Your task to perform on an android device: What is the recent news? Image 0: 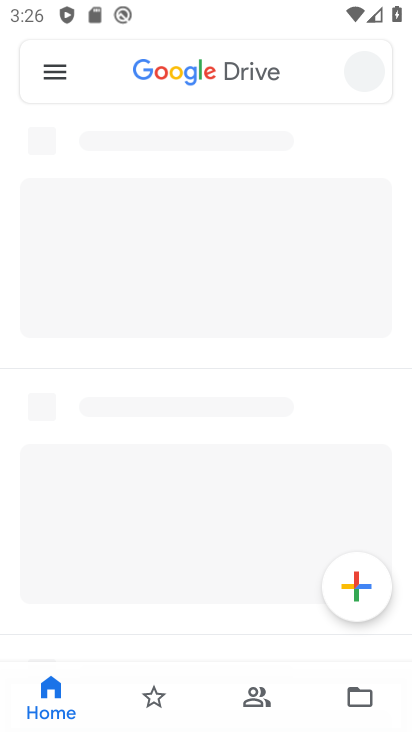
Step 0: drag from (352, 503) to (371, 219)
Your task to perform on an android device: What is the recent news? Image 1: 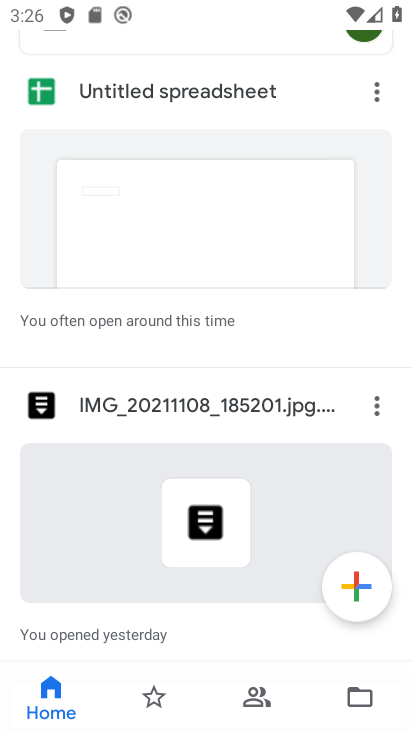
Step 1: press home button
Your task to perform on an android device: What is the recent news? Image 2: 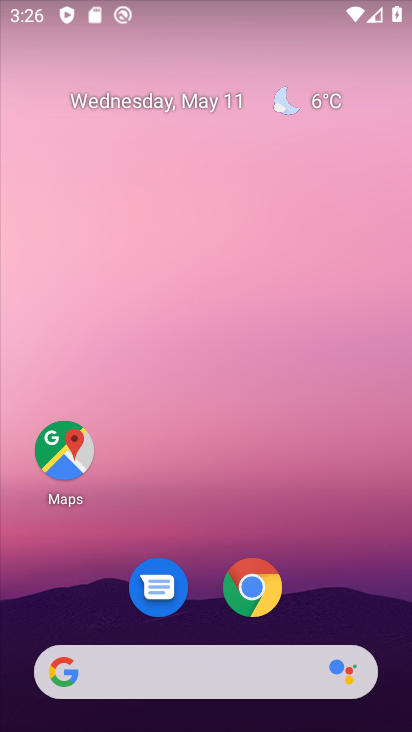
Step 2: drag from (296, 603) to (198, 263)
Your task to perform on an android device: What is the recent news? Image 3: 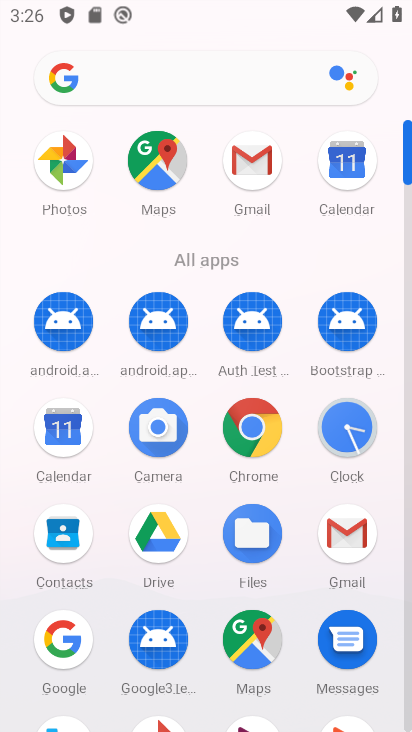
Step 3: click (52, 660)
Your task to perform on an android device: What is the recent news? Image 4: 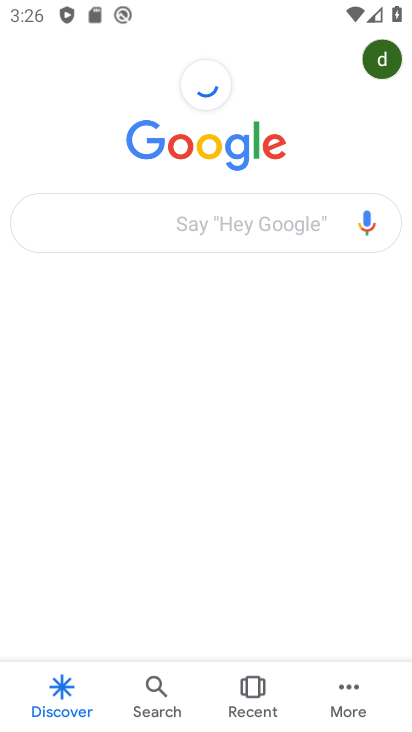
Step 4: click (65, 228)
Your task to perform on an android device: What is the recent news? Image 5: 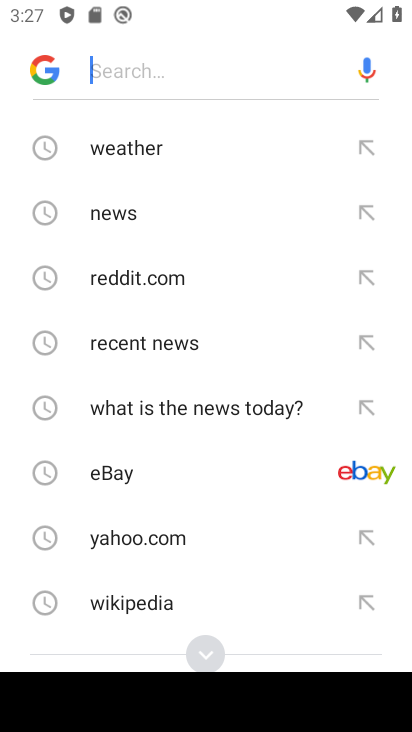
Step 5: type "recent news"
Your task to perform on an android device: What is the recent news? Image 6: 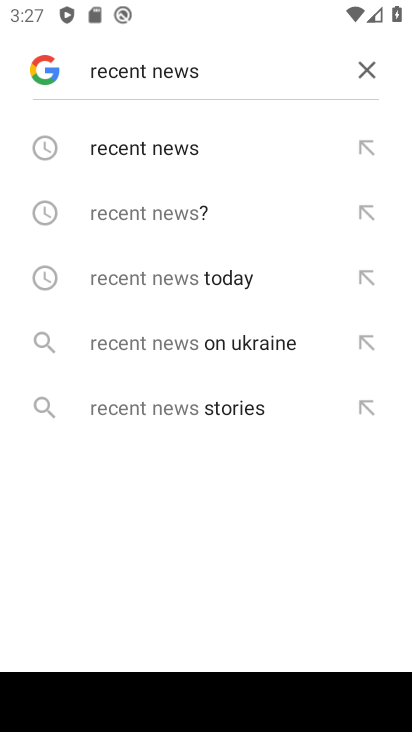
Step 6: click (235, 158)
Your task to perform on an android device: What is the recent news? Image 7: 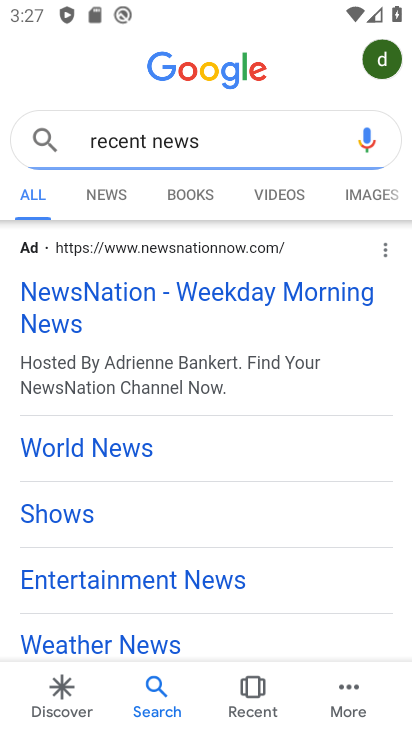
Step 7: drag from (322, 553) to (340, 279)
Your task to perform on an android device: What is the recent news? Image 8: 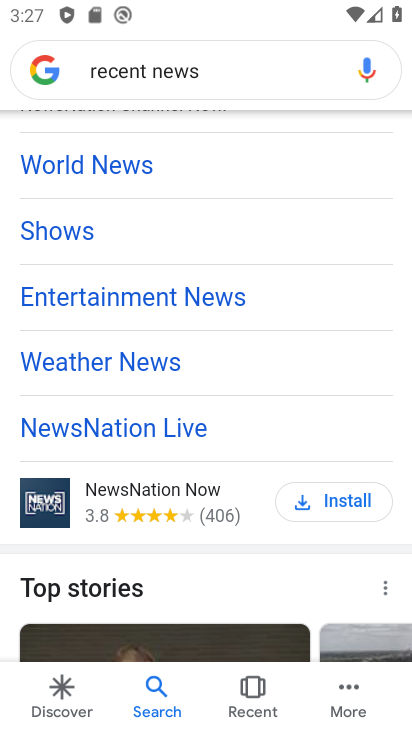
Step 8: drag from (192, 579) to (235, 238)
Your task to perform on an android device: What is the recent news? Image 9: 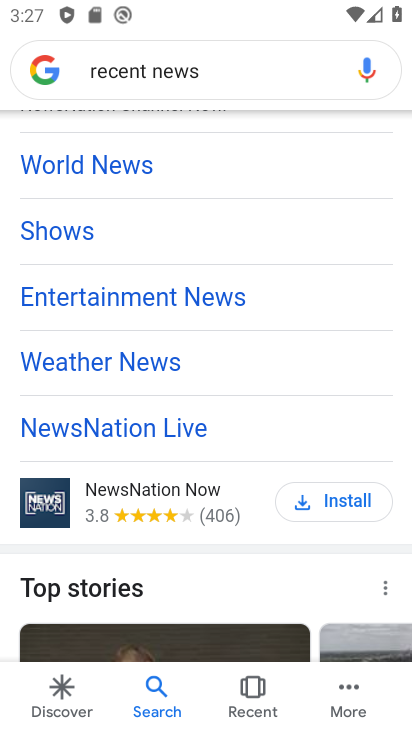
Step 9: click (307, 211)
Your task to perform on an android device: What is the recent news? Image 10: 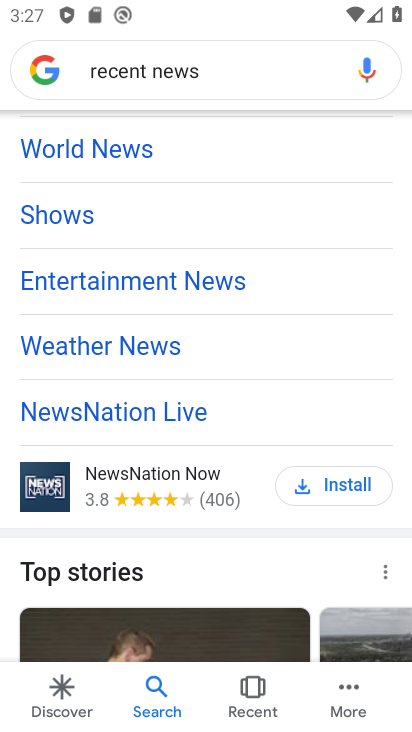
Step 10: click (310, 119)
Your task to perform on an android device: What is the recent news? Image 11: 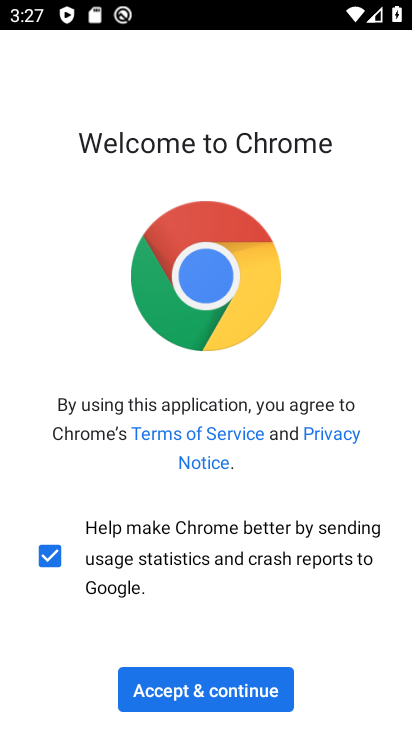
Step 11: task complete